Your task to perform on an android device: toggle data saver in the chrome app Image 0: 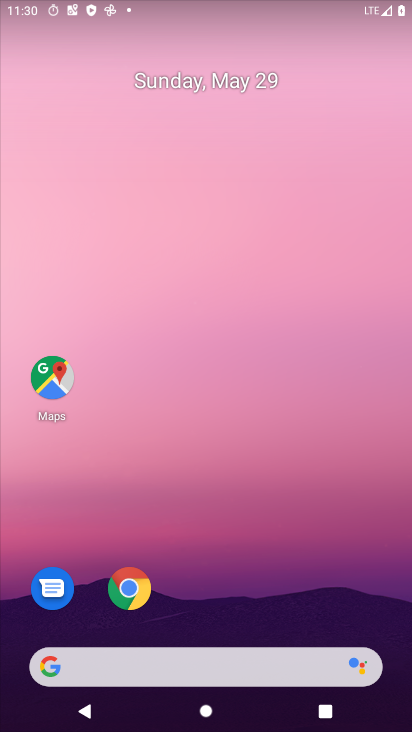
Step 0: drag from (178, 590) to (217, 217)
Your task to perform on an android device: toggle data saver in the chrome app Image 1: 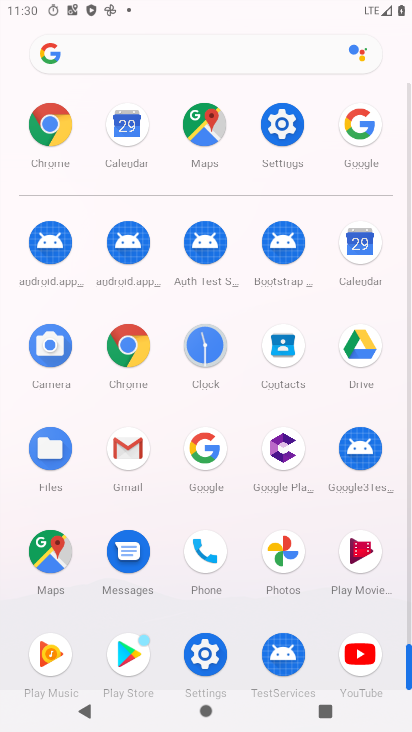
Step 1: click (138, 355)
Your task to perform on an android device: toggle data saver in the chrome app Image 2: 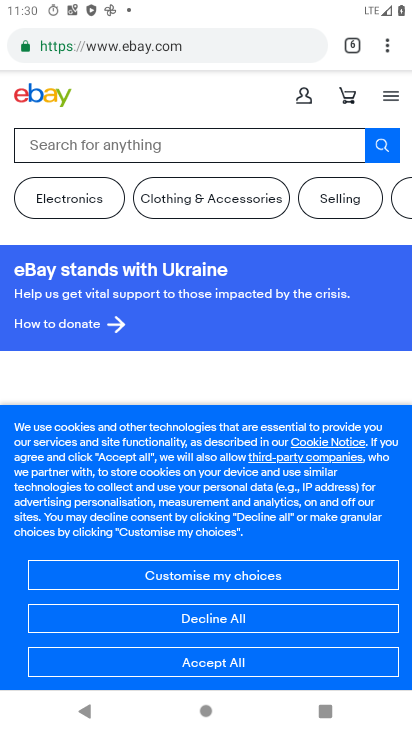
Step 2: click (389, 51)
Your task to perform on an android device: toggle data saver in the chrome app Image 3: 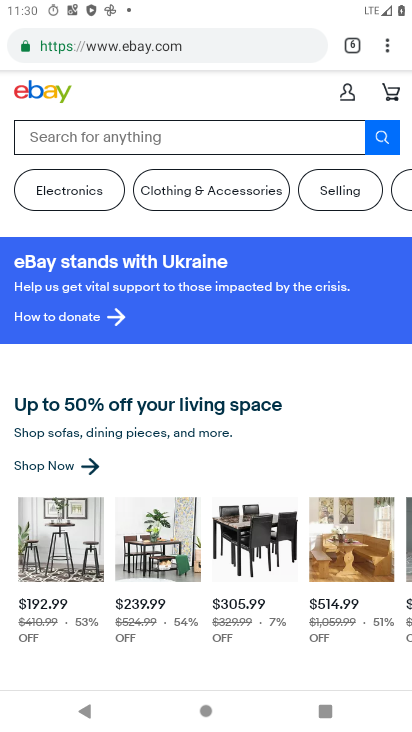
Step 3: click (390, 53)
Your task to perform on an android device: toggle data saver in the chrome app Image 4: 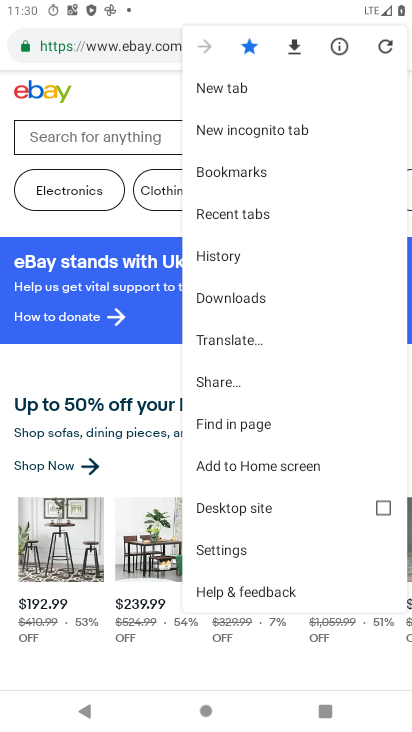
Step 4: click (229, 545)
Your task to perform on an android device: toggle data saver in the chrome app Image 5: 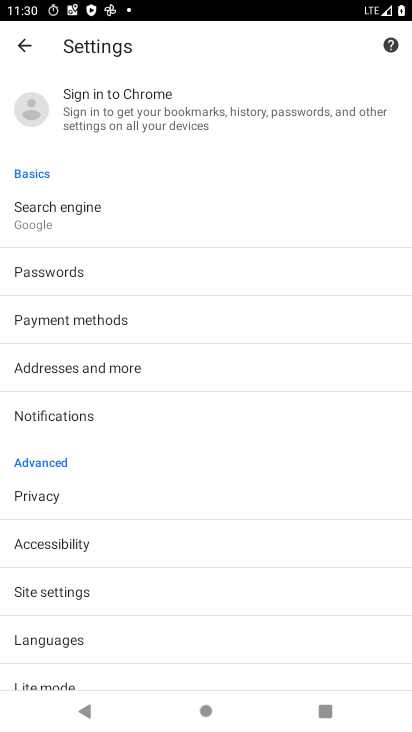
Step 5: drag from (101, 646) to (134, 473)
Your task to perform on an android device: toggle data saver in the chrome app Image 6: 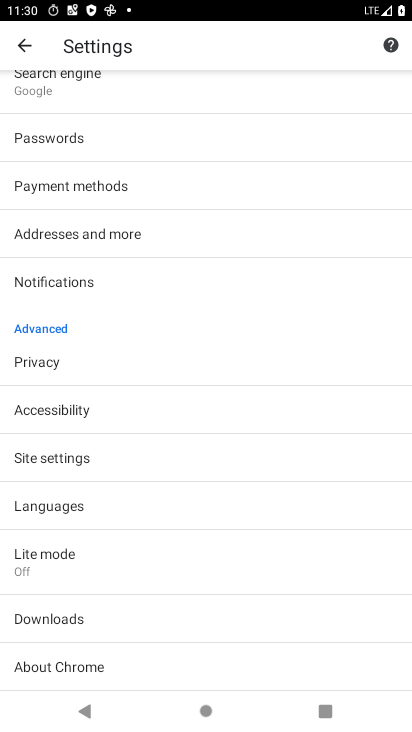
Step 6: click (93, 564)
Your task to perform on an android device: toggle data saver in the chrome app Image 7: 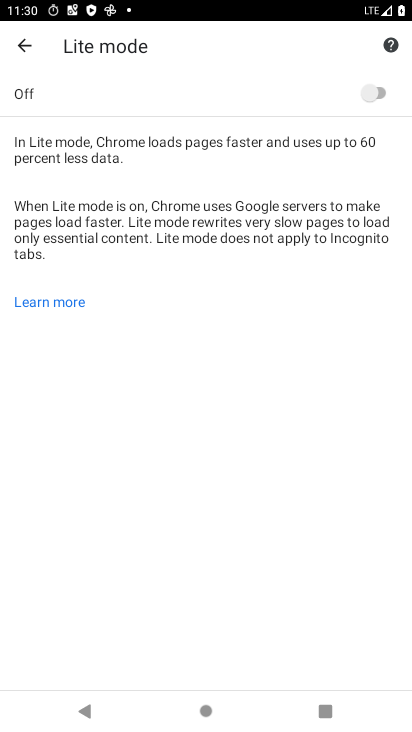
Step 7: click (374, 92)
Your task to perform on an android device: toggle data saver in the chrome app Image 8: 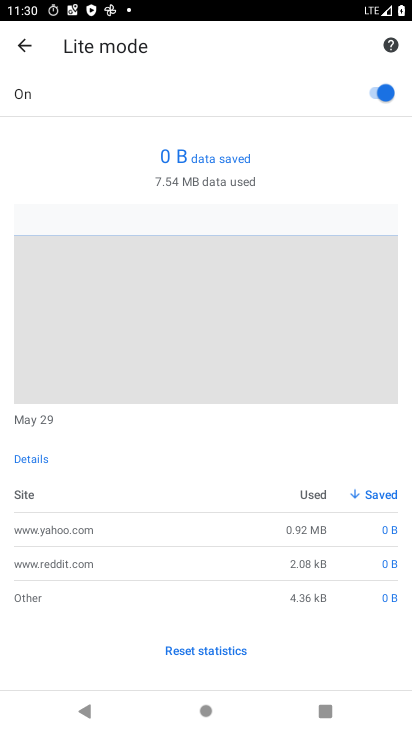
Step 8: task complete